Your task to perform on an android device: See recent photos Image 0: 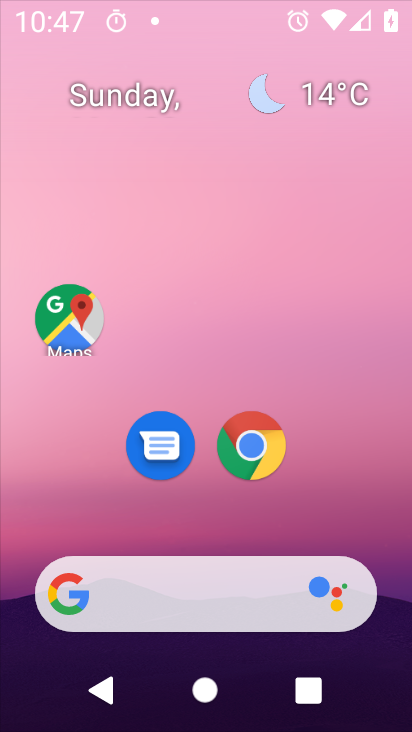
Step 0: click (304, 53)
Your task to perform on an android device: See recent photos Image 1: 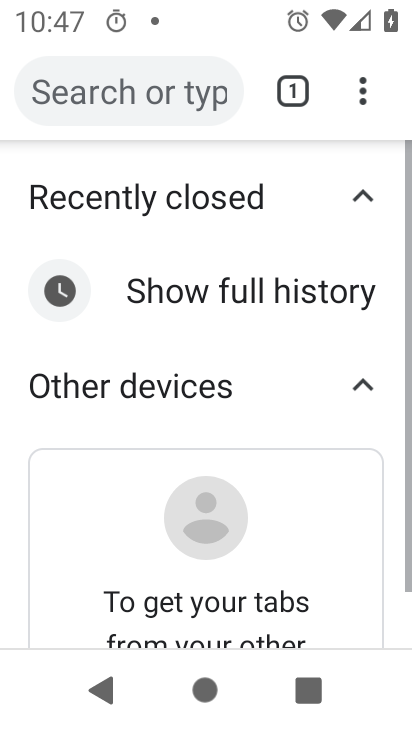
Step 1: drag from (203, 491) to (255, 109)
Your task to perform on an android device: See recent photos Image 2: 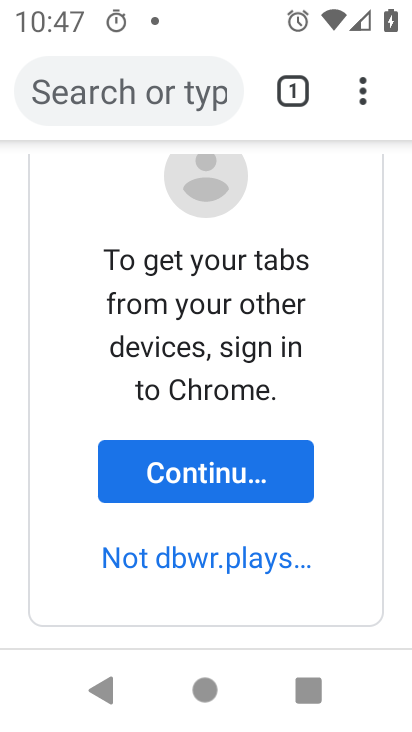
Step 2: press home button
Your task to perform on an android device: See recent photos Image 3: 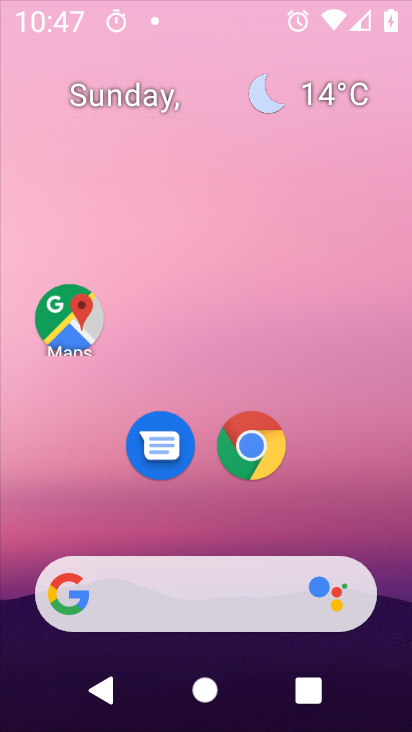
Step 3: drag from (194, 559) to (266, 132)
Your task to perform on an android device: See recent photos Image 4: 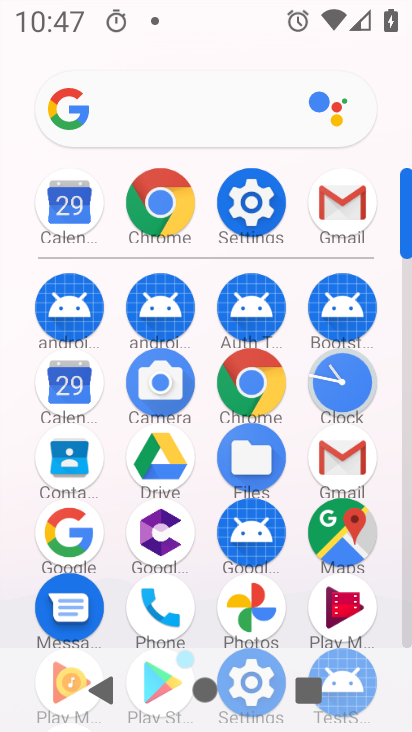
Step 4: click (247, 616)
Your task to perform on an android device: See recent photos Image 5: 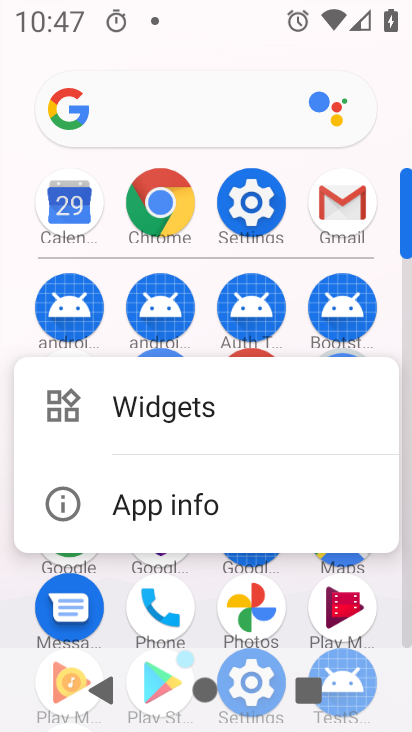
Step 5: click (160, 525)
Your task to perform on an android device: See recent photos Image 6: 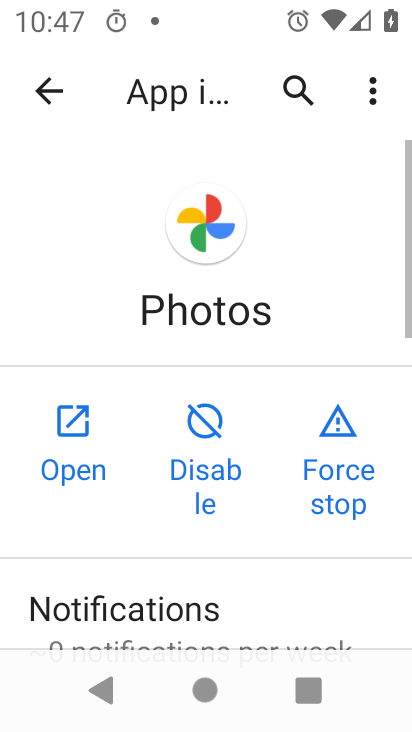
Step 6: click (64, 449)
Your task to perform on an android device: See recent photos Image 7: 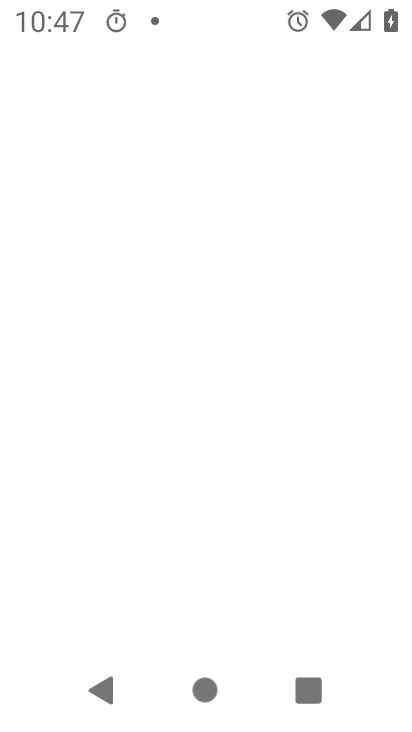
Step 7: drag from (238, 563) to (354, 217)
Your task to perform on an android device: See recent photos Image 8: 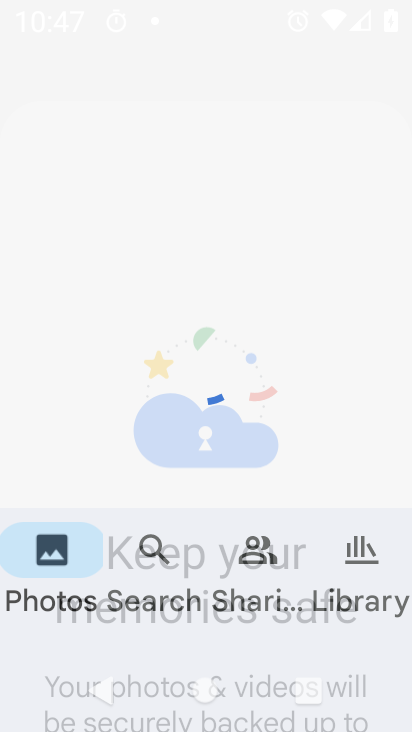
Step 8: drag from (262, 388) to (305, 179)
Your task to perform on an android device: See recent photos Image 9: 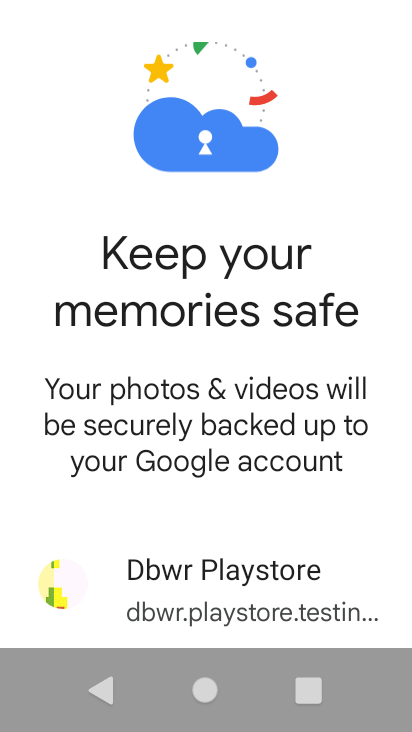
Step 9: drag from (312, 137) to (286, 509)
Your task to perform on an android device: See recent photos Image 10: 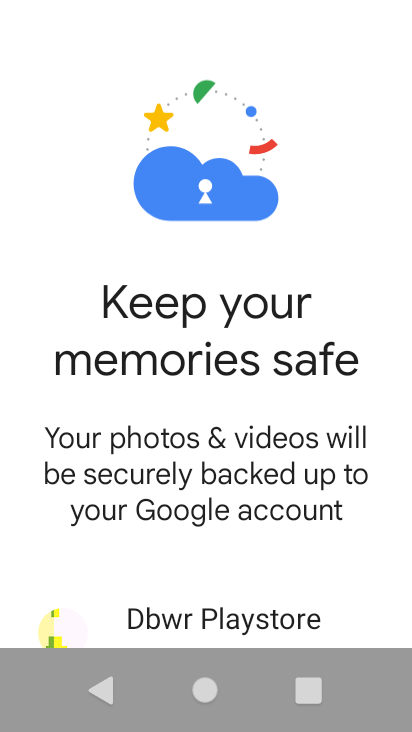
Step 10: drag from (272, 516) to (408, 71)
Your task to perform on an android device: See recent photos Image 11: 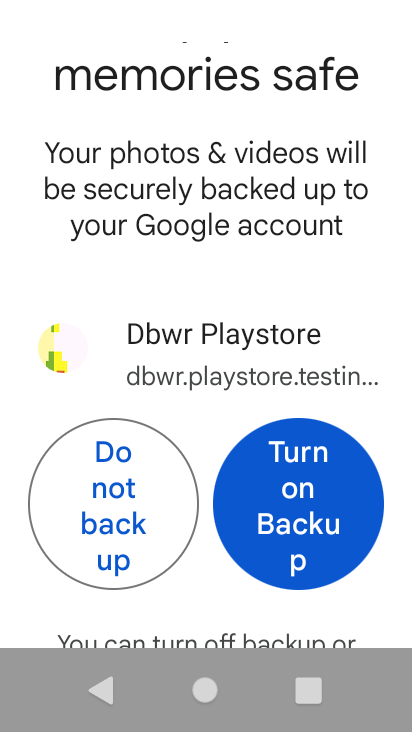
Step 11: click (264, 536)
Your task to perform on an android device: See recent photos Image 12: 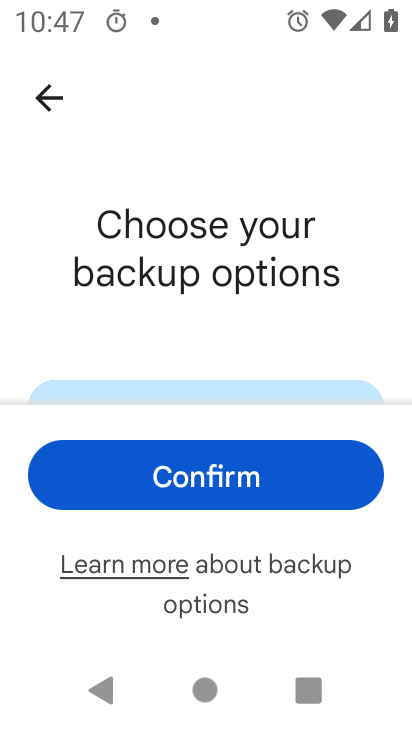
Step 12: drag from (262, 606) to (349, 167)
Your task to perform on an android device: See recent photos Image 13: 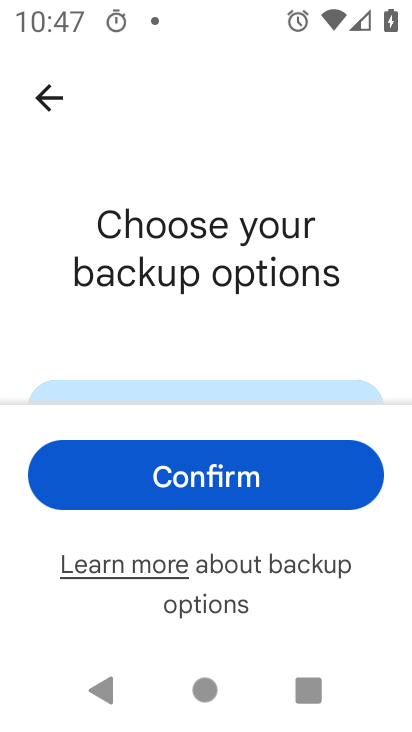
Step 13: click (150, 499)
Your task to perform on an android device: See recent photos Image 14: 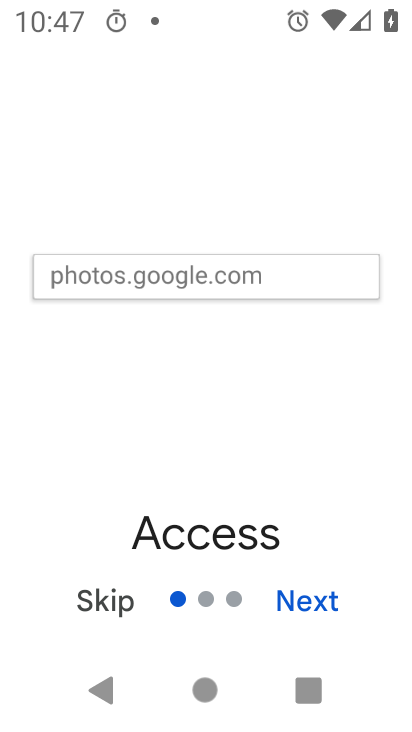
Step 14: click (116, 605)
Your task to perform on an android device: See recent photos Image 15: 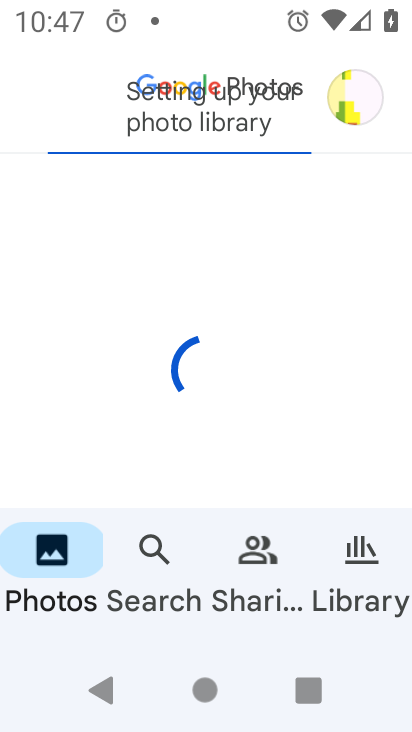
Step 15: click (150, 546)
Your task to perform on an android device: See recent photos Image 16: 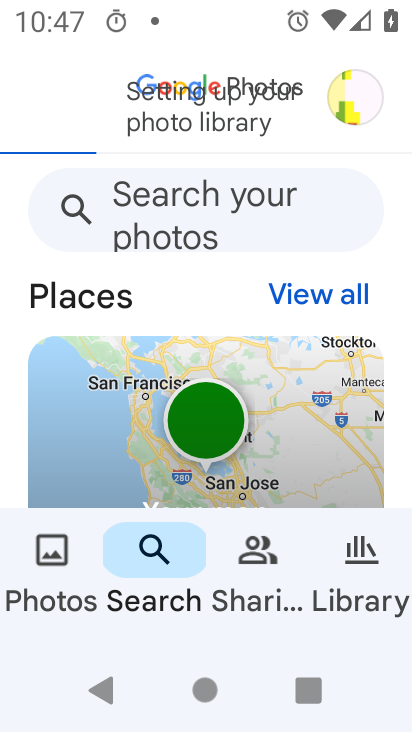
Step 16: click (76, 548)
Your task to perform on an android device: See recent photos Image 17: 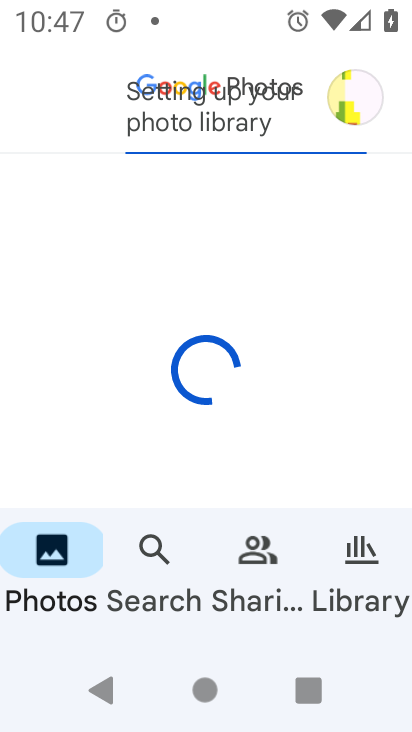
Step 17: drag from (183, 458) to (344, 130)
Your task to perform on an android device: See recent photos Image 18: 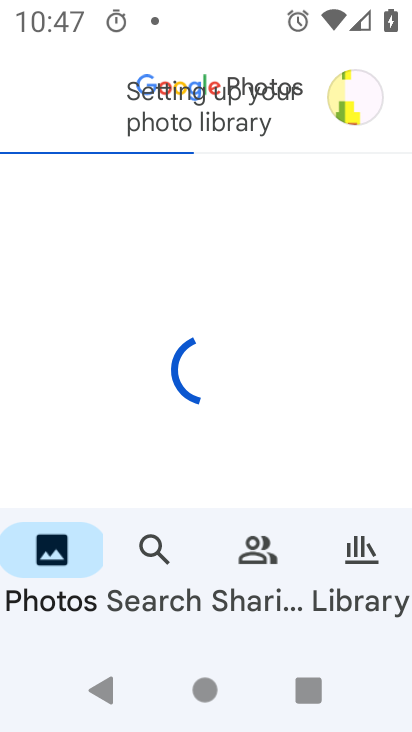
Step 18: click (132, 538)
Your task to perform on an android device: See recent photos Image 19: 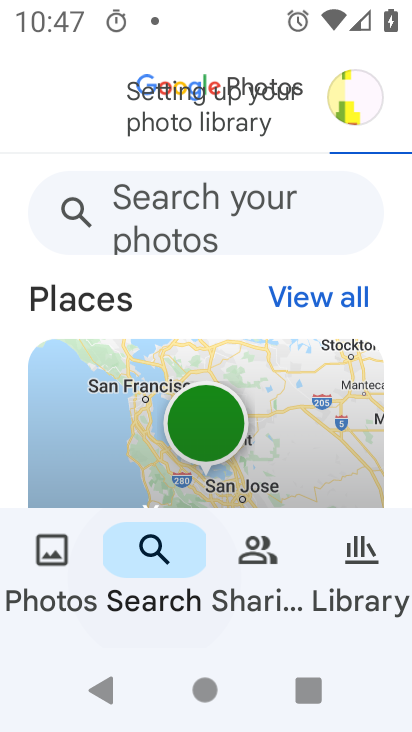
Step 19: drag from (324, 397) to (393, 206)
Your task to perform on an android device: See recent photos Image 20: 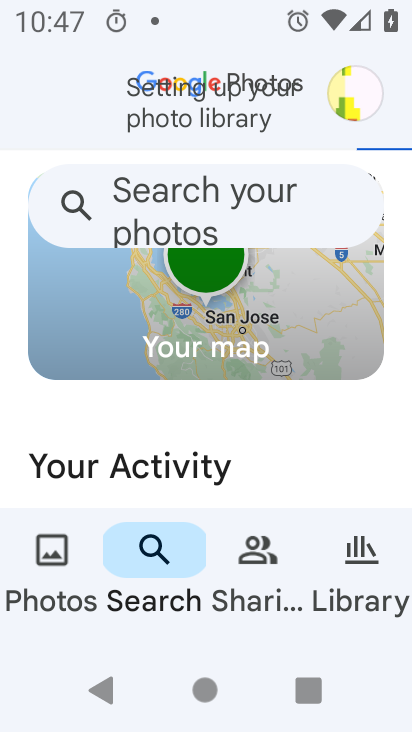
Step 20: drag from (165, 350) to (320, 0)
Your task to perform on an android device: See recent photos Image 21: 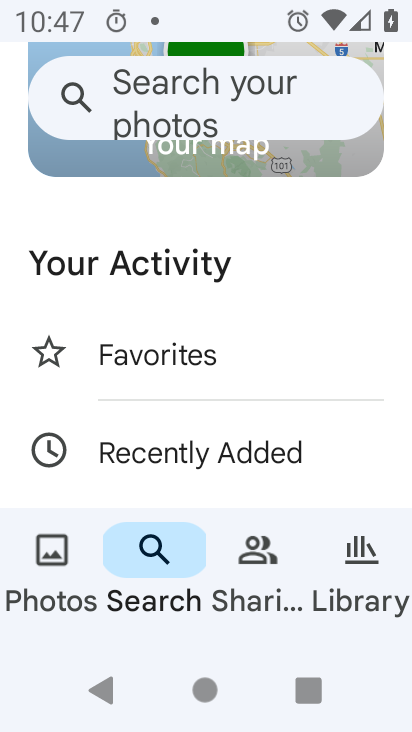
Step 21: drag from (225, 398) to (397, 131)
Your task to perform on an android device: See recent photos Image 22: 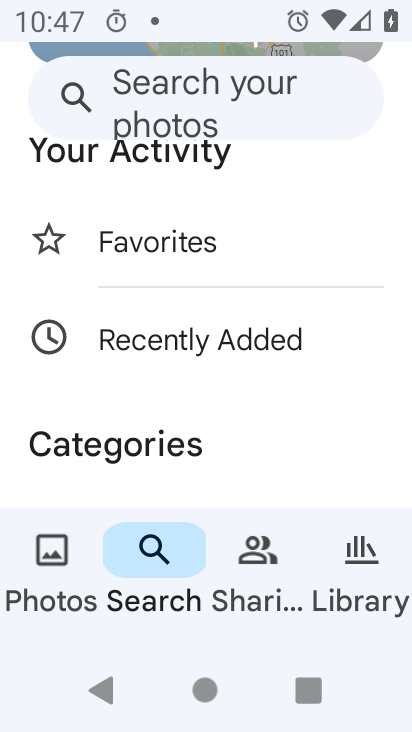
Step 22: click (68, 550)
Your task to perform on an android device: See recent photos Image 23: 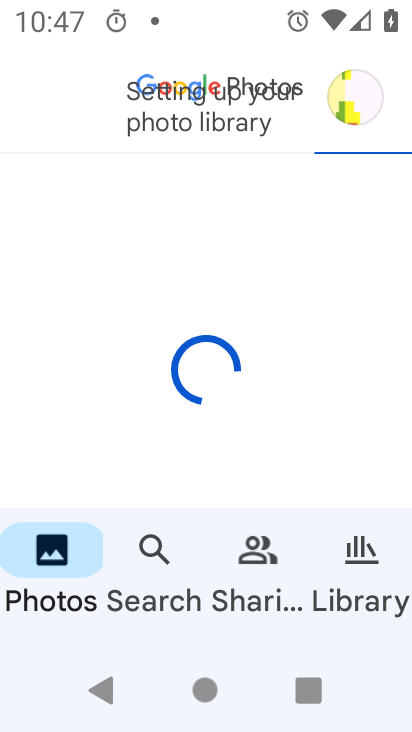
Step 23: task complete